Your task to perform on an android device: add a contact Image 0: 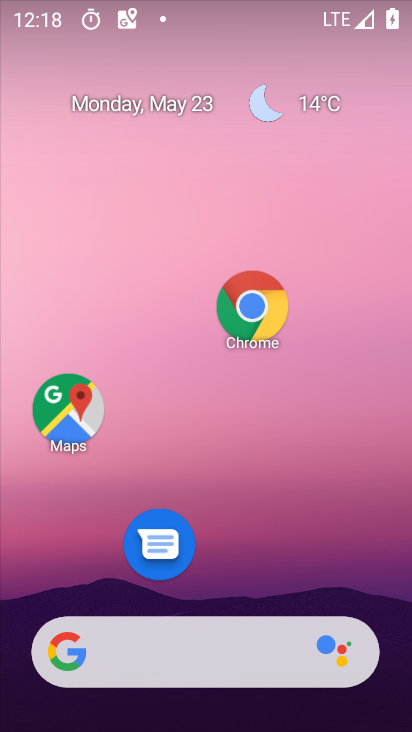
Step 0: drag from (350, 529) to (333, 329)
Your task to perform on an android device: add a contact Image 1: 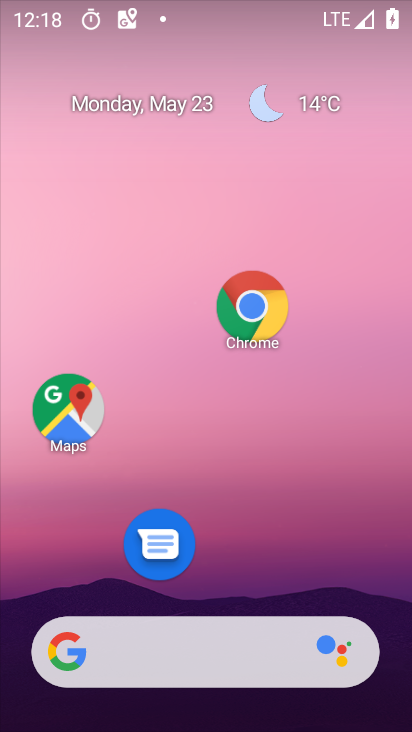
Step 1: drag from (276, 491) to (286, 231)
Your task to perform on an android device: add a contact Image 2: 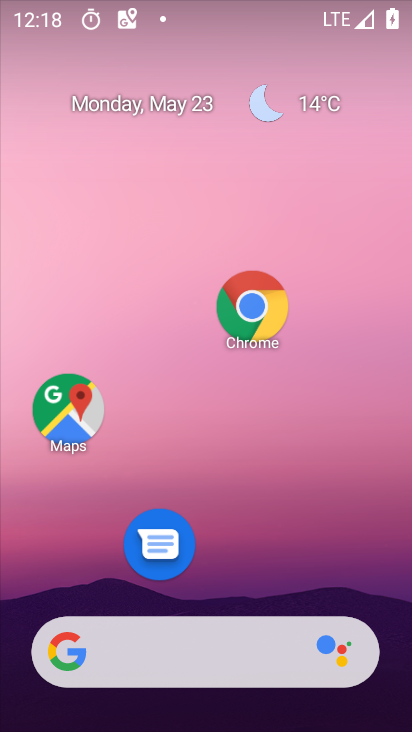
Step 2: drag from (268, 548) to (245, 161)
Your task to perform on an android device: add a contact Image 3: 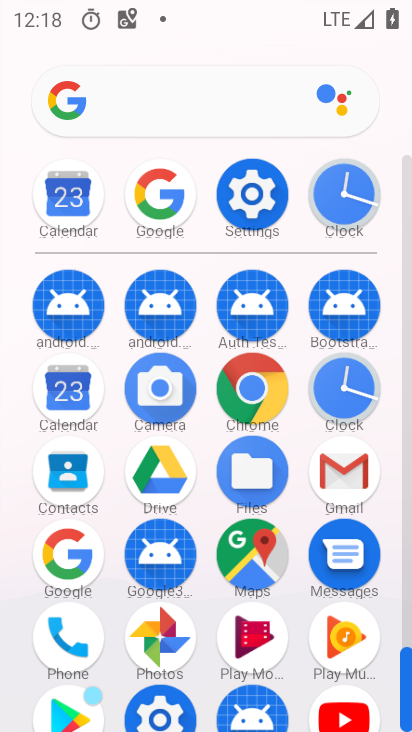
Step 3: click (70, 499)
Your task to perform on an android device: add a contact Image 4: 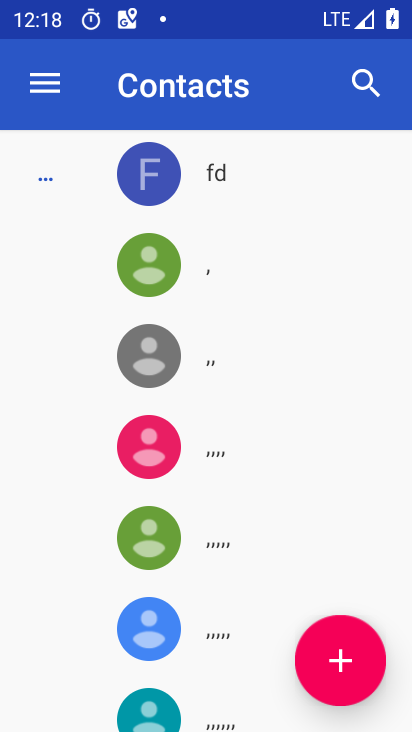
Step 4: click (335, 666)
Your task to perform on an android device: add a contact Image 5: 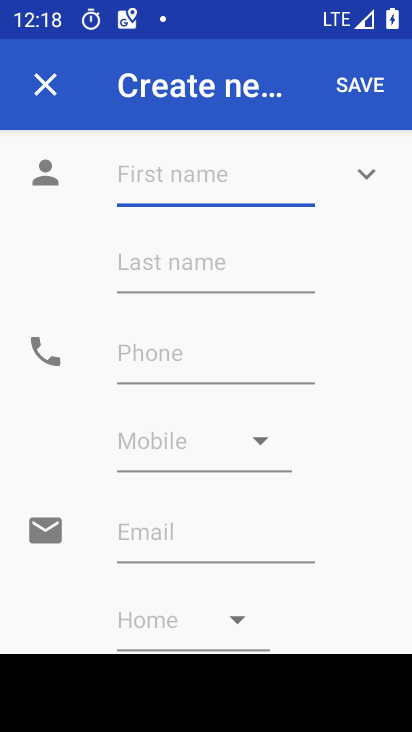
Step 5: type "Rajendra"
Your task to perform on an android device: add a contact Image 6: 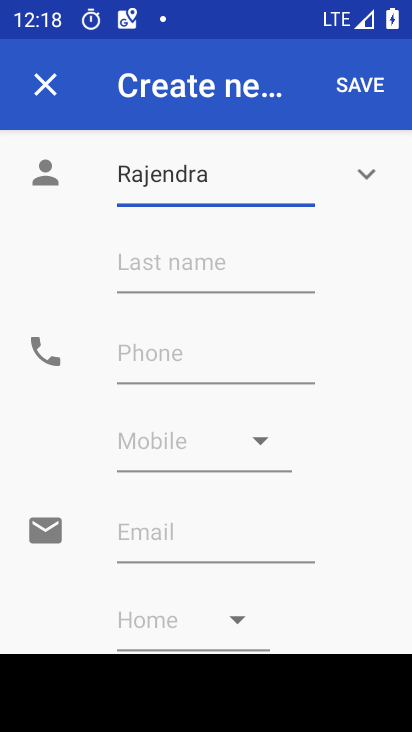
Step 6: click (123, 265)
Your task to perform on an android device: add a contact Image 7: 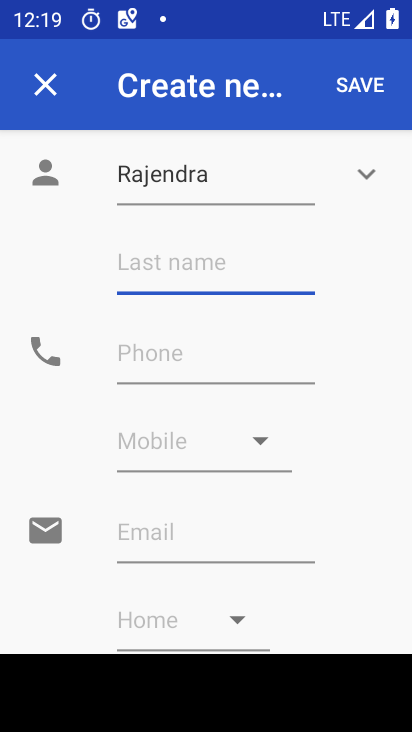
Step 7: type "sandhu"
Your task to perform on an android device: add a contact Image 8: 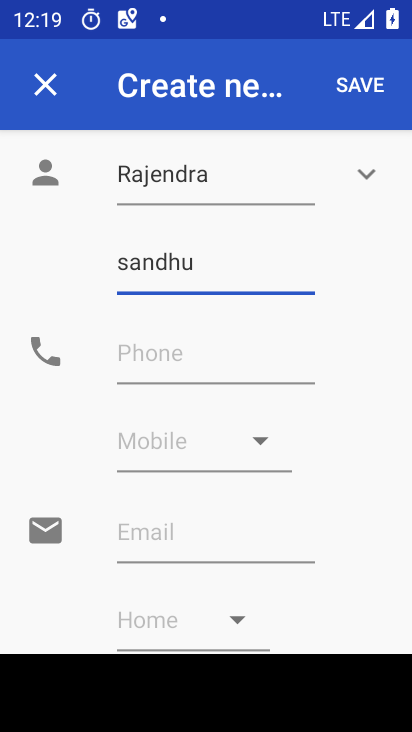
Step 8: click (129, 365)
Your task to perform on an android device: add a contact Image 9: 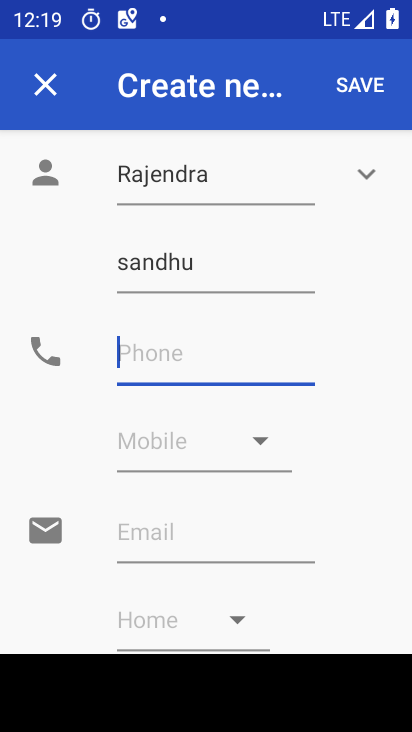
Step 9: type "7979799898"
Your task to perform on an android device: add a contact Image 10: 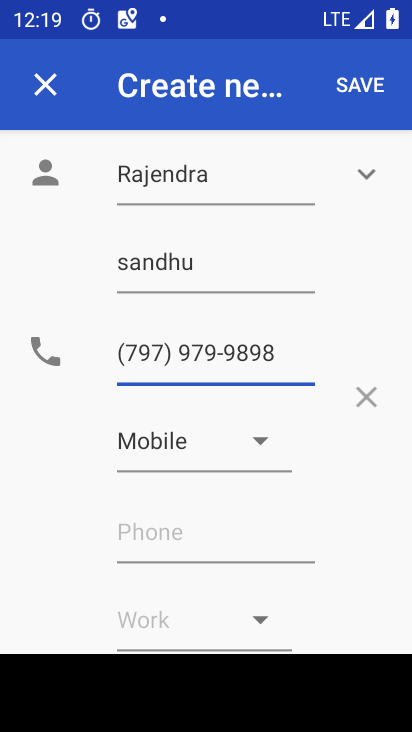
Step 10: click (336, 81)
Your task to perform on an android device: add a contact Image 11: 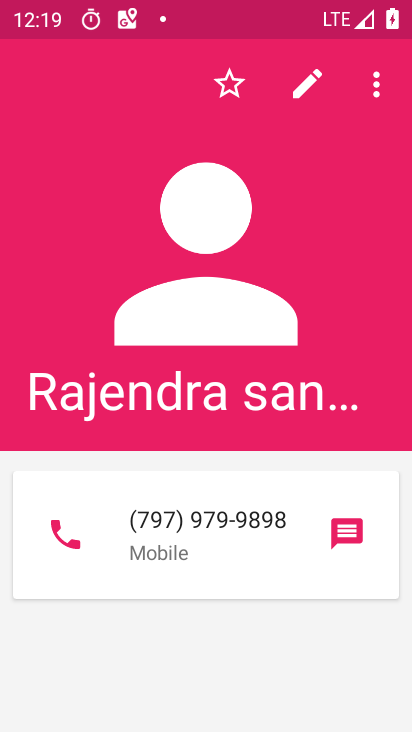
Step 11: task complete